Your task to perform on an android device: turn on data saver in the chrome app Image 0: 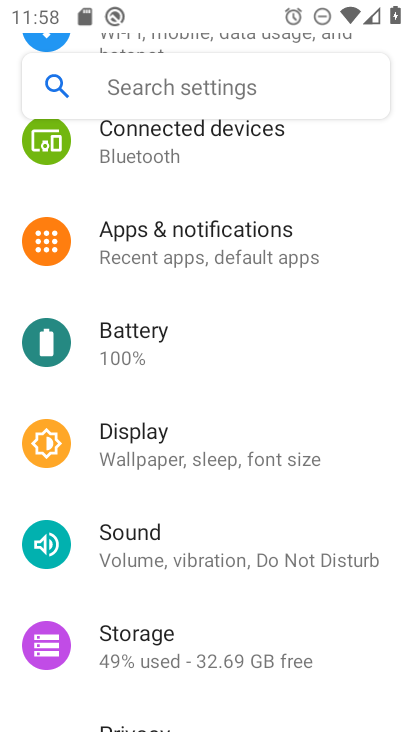
Step 0: press home button
Your task to perform on an android device: turn on data saver in the chrome app Image 1: 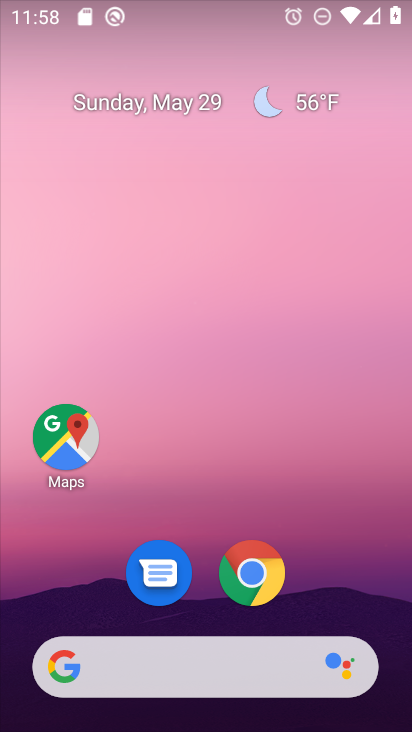
Step 1: drag from (306, 685) to (313, 59)
Your task to perform on an android device: turn on data saver in the chrome app Image 2: 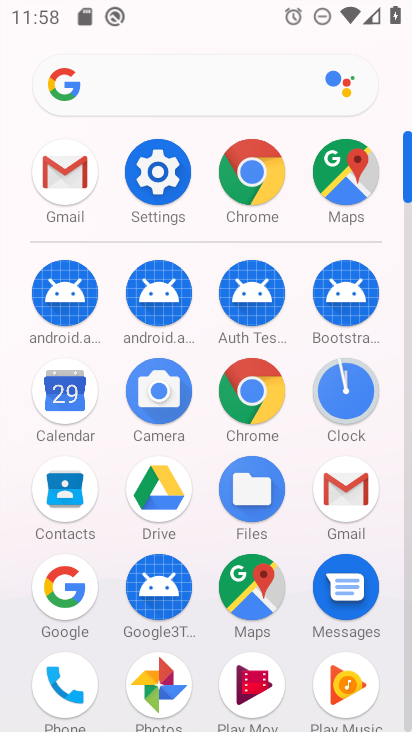
Step 2: click (244, 391)
Your task to perform on an android device: turn on data saver in the chrome app Image 3: 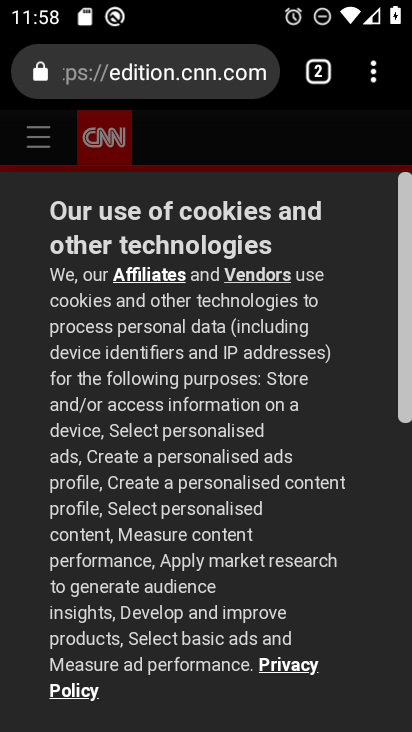
Step 3: drag from (371, 83) to (146, 578)
Your task to perform on an android device: turn on data saver in the chrome app Image 4: 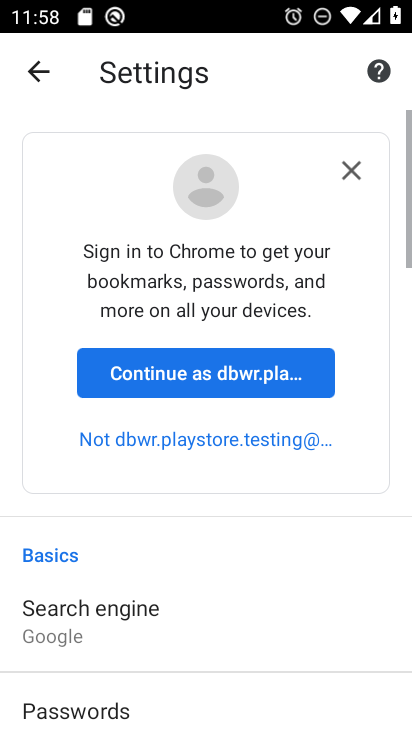
Step 4: drag from (211, 567) to (282, 77)
Your task to perform on an android device: turn on data saver in the chrome app Image 5: 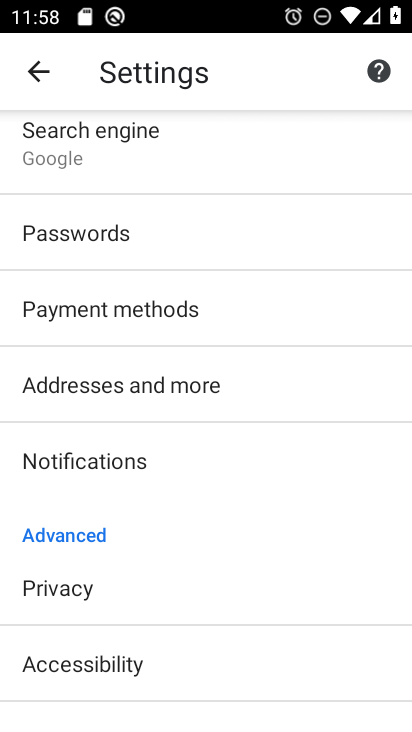
Step 5: drag from (176, 684) to (250, 279)
Your task to perform on an android device: turn on data saver in the chrome app Image 6: 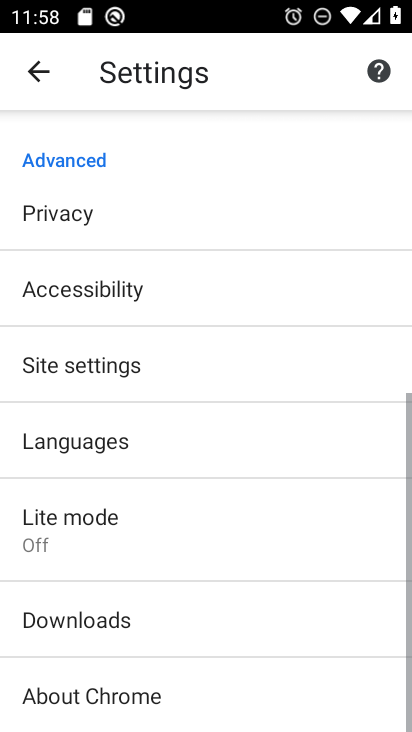
Step 6: click (166, 555)
Your task to perform on an android device: turn on data saver in the chrome app Image 7: 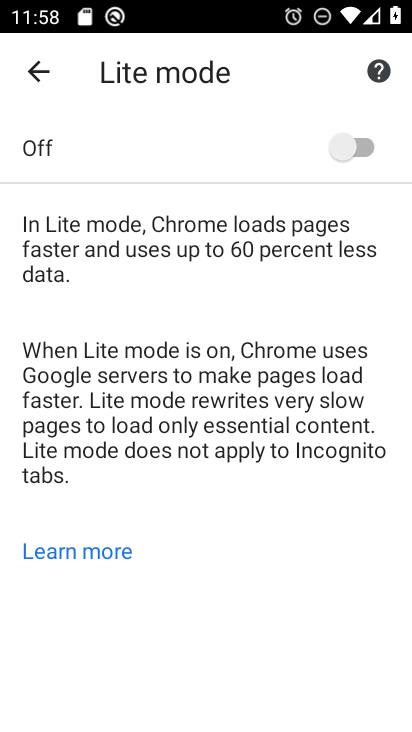
Step 7: click (362, 140)
Your task to perform on an android device: turn on data saver in the chrome app Image 8: 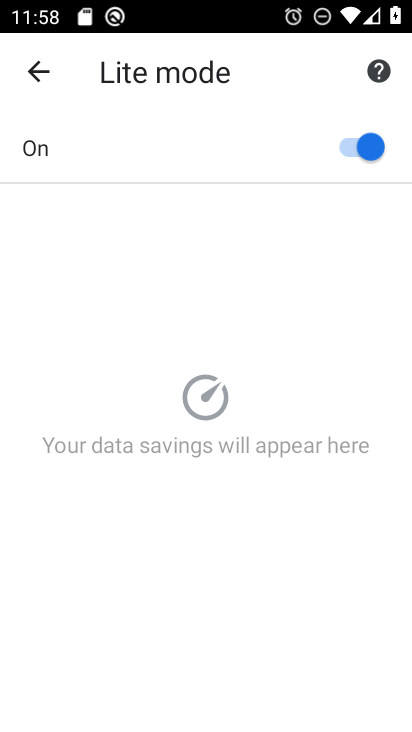
Step 8: task complete